Your task to perform on an android device: Open settings on Google Maps Image 0: 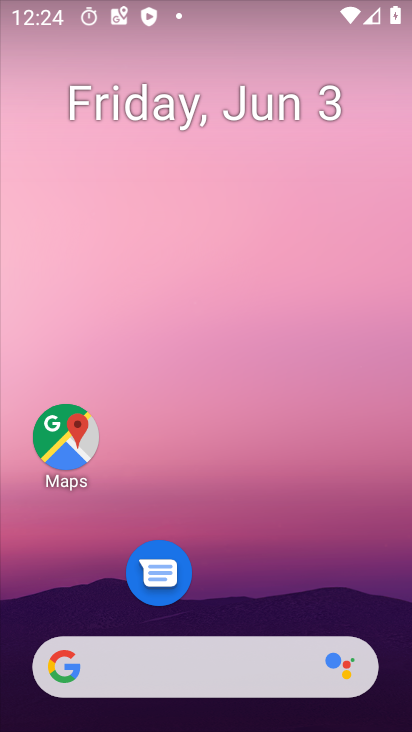
Step 0: drag from (154, 586) to (258, 30)
Your task to perform on an android device: Open settings on Google Maps Image 1: 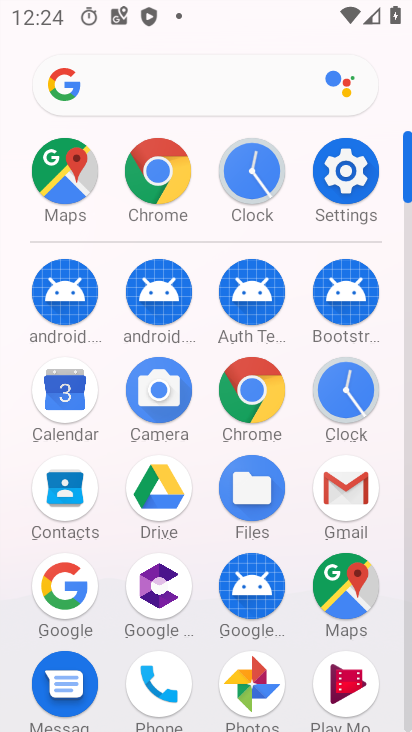
Step 1: click (338, 597)
Your task to perform on an android device: Open settings on Google Maps Image 2: 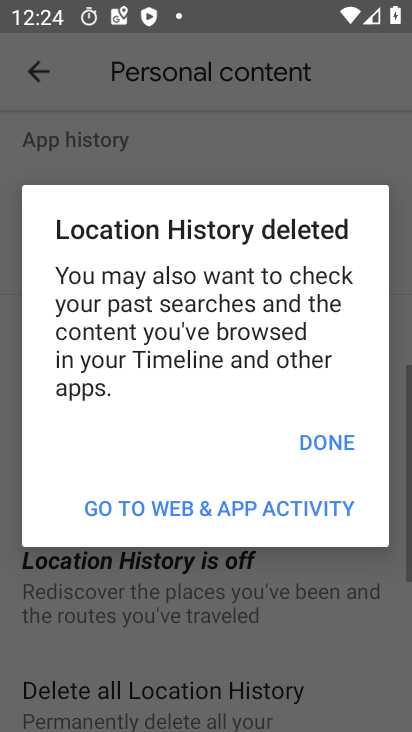
Step 2: click (330, 449)
Your task to perform on an android device: Open settings on Google Maps Image 3: 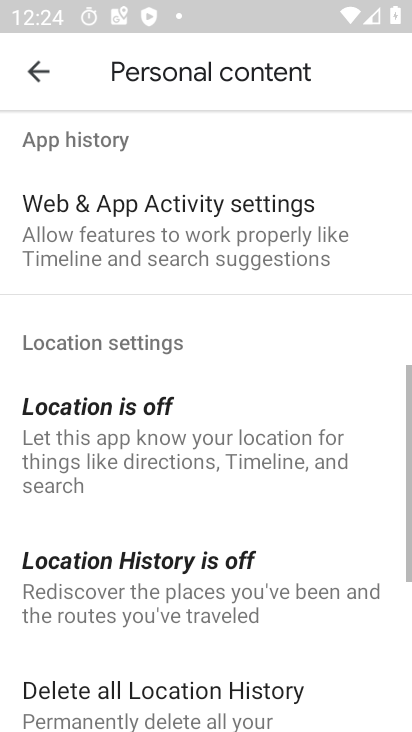
Step 3: press back button
Your task to perform on an android device: Open settings on Google Maps Image 4: 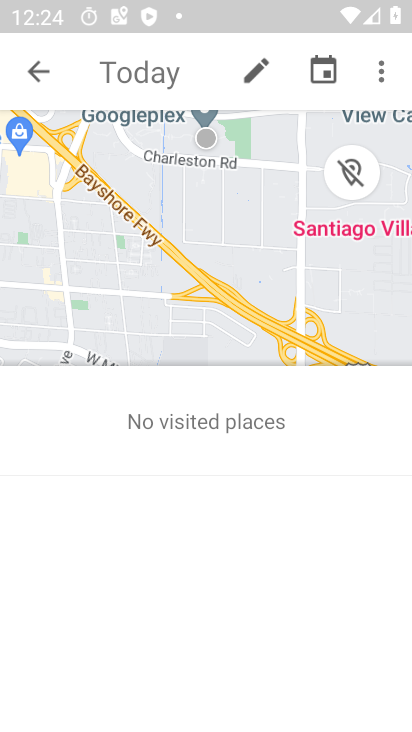
Step 4: press back button
Your task to perform on an android device: Open settings on Google Maps Image 5: 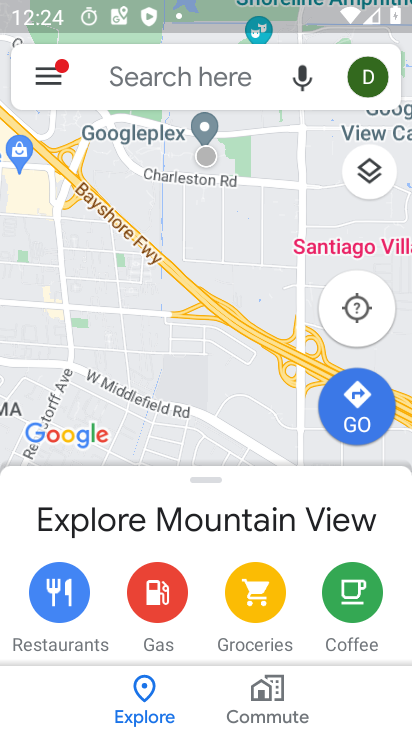
Step 5: click (43, 67)
Your task to perform on an android device: Open settings on Google Maps Image 6: 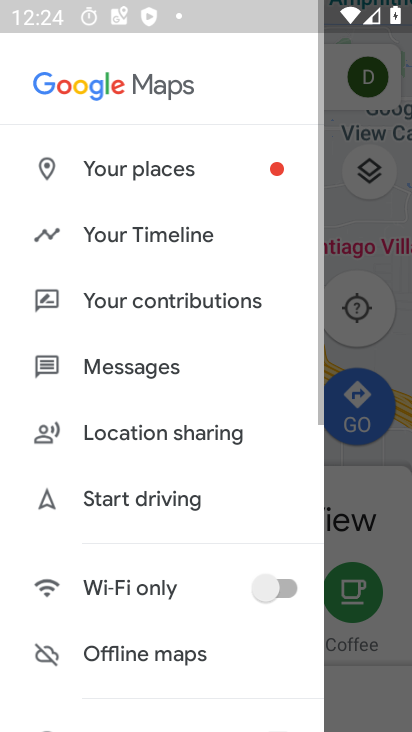
Step 6: click (152, 240)
Your task to perform on an android device: Open settings on Google Maps Image 7: 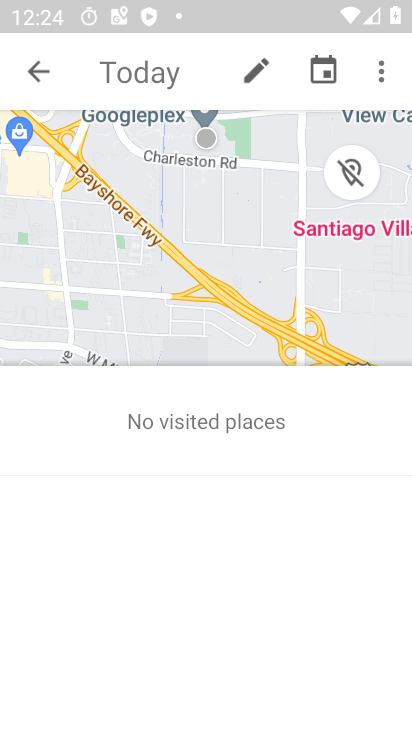
Step 7: click (382, 84)
Your task to perform on an android device: Open settings on Google Maps Image 8: 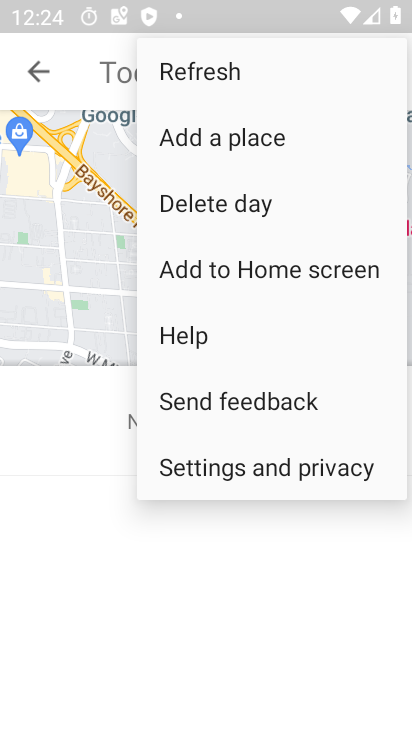
Step 8: click (278, 478)
Your task to perform on an android device: Open settings on Google Maps Image 9: 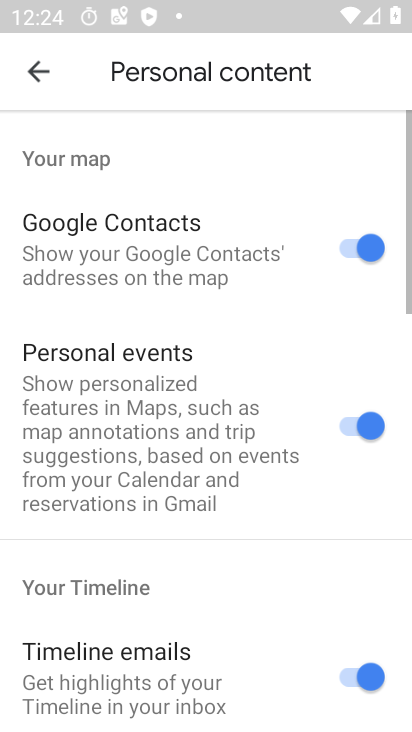
Step 9: task complete